Your task to perform on an android device: turn off location Image 0: 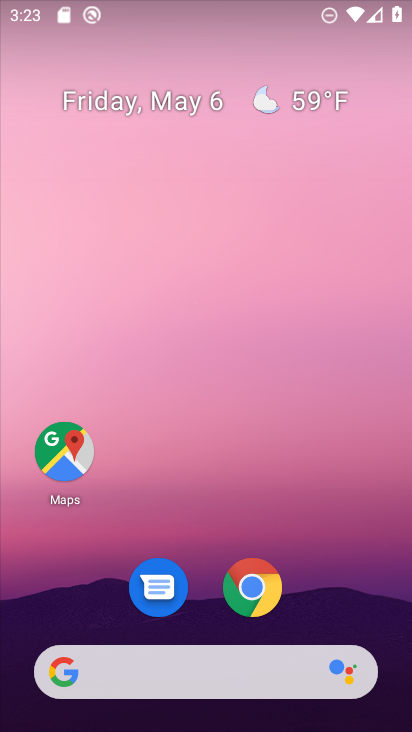
Step 0: drag from (319, 591) to (285, 67)
Your task to perform on an android device: turn off location Image 1: 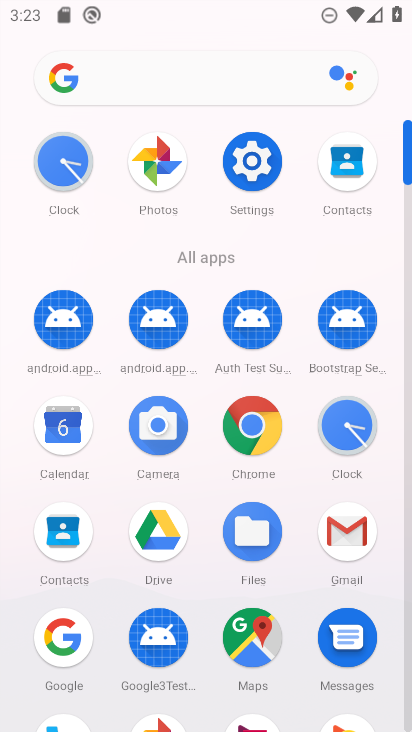
Step 1: click (251, 170)
Your task to perform on an android device: turn off location Image 2: 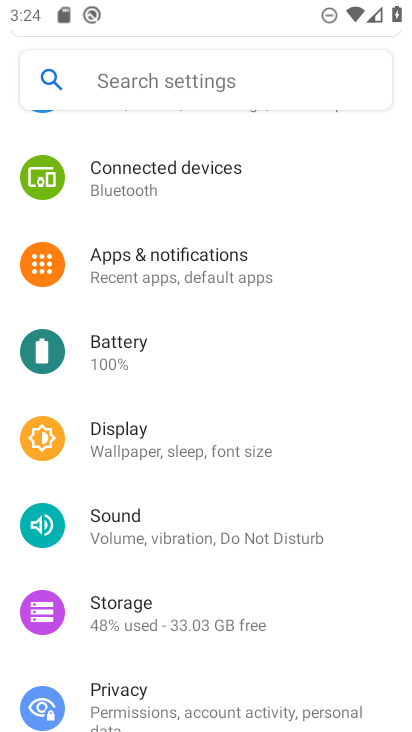
Step 2: drag from (237, 611) to (246, 179)
Your task to perform on an android device: turn off location Image 3: 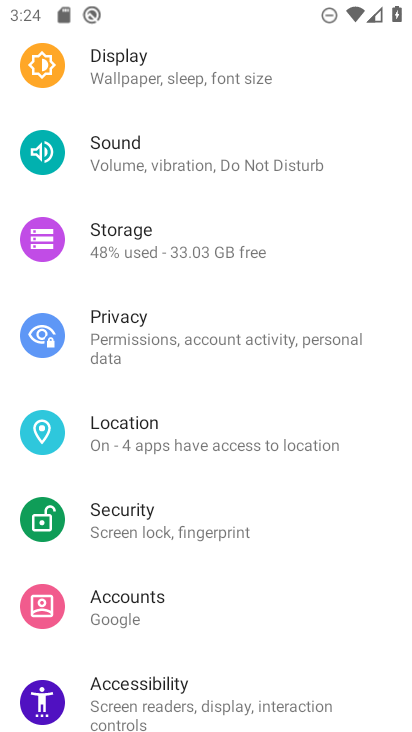
Step 3: click (123, 439)
Your task to perform on an android device: turn off location Image 4: 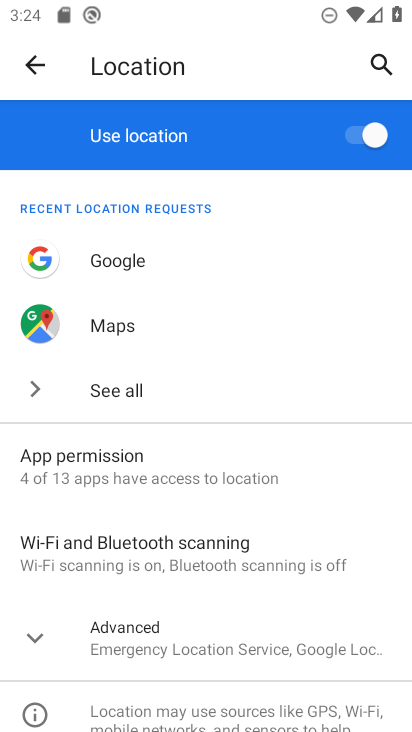
Step 4: click (360, 128)
Your task to perform on an android device: turn off location Image 5: 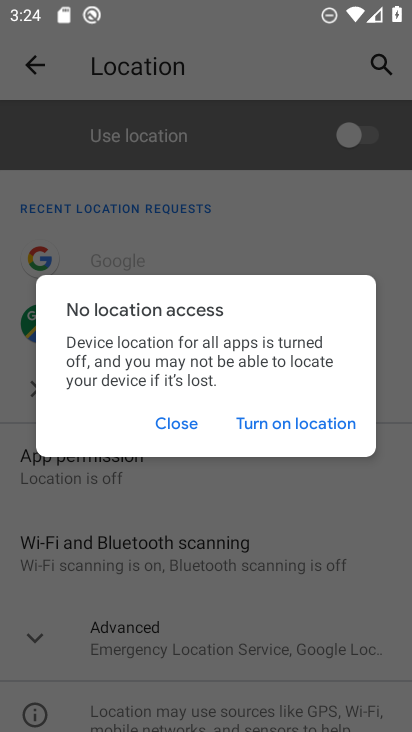
Step 5: task complete